Your task to perform on an android device: check out phone information Image 0: 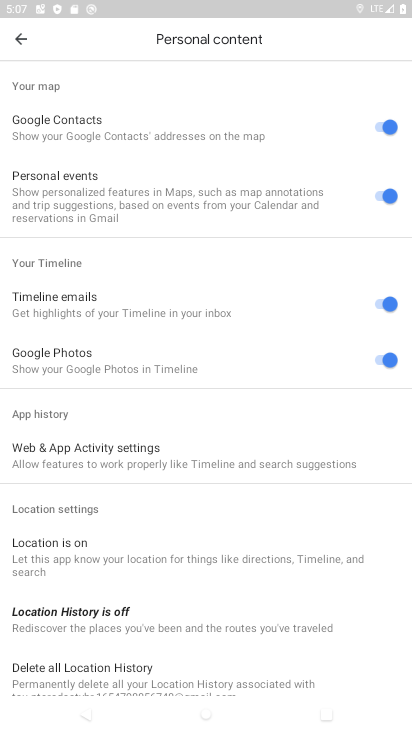
Step 0: drag from (293, 8) to (310, 671)
Your task to perform on an android device: check out phone information Image 1: 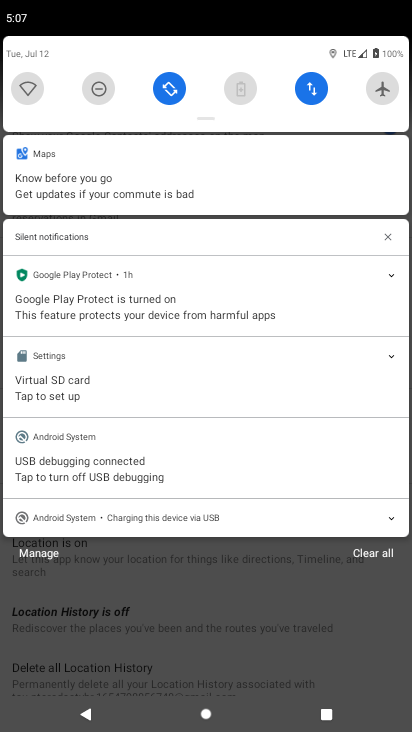
Step 1: drag from (222, 318) to (263, 690)
Your task to perform on an android device: check out phone information Image 2: 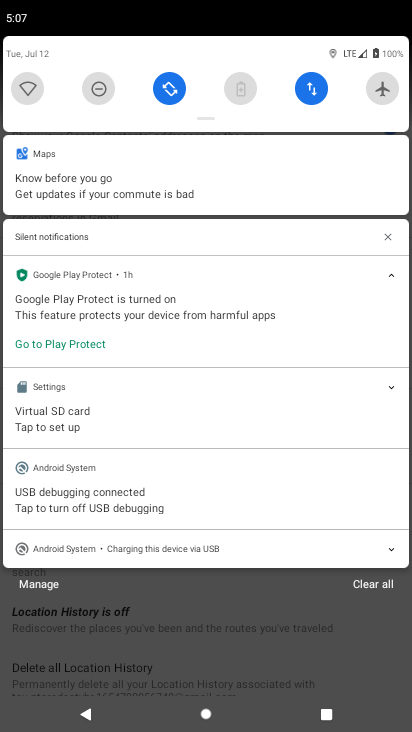
Step 2: drag from (223, 317) to (249, 585)
Your task to perform on an android device: check out phone information Image 3: 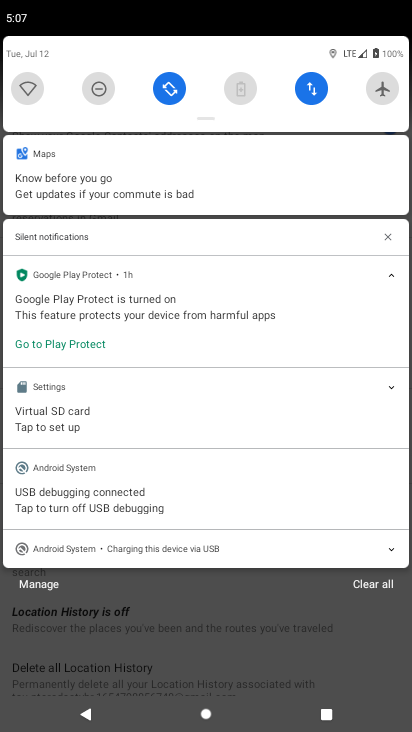
Step 3: drag from (197, 63) to (221, 697)
Your task to perform on an android device: check out phone information Image 4: 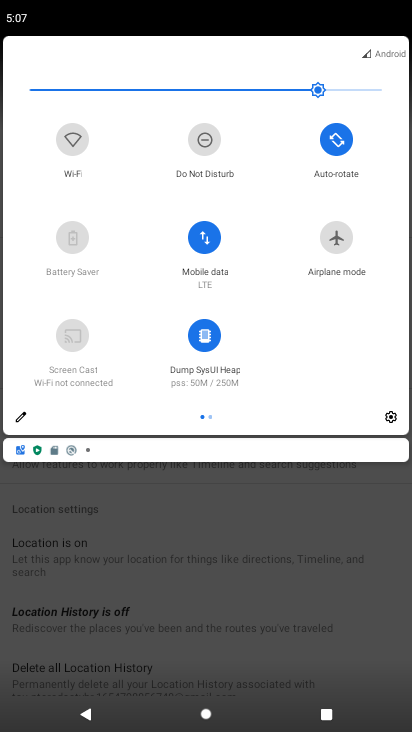
Step 4: click (396, 428)
Your task to perform on an android device: check out phone information Image 5: 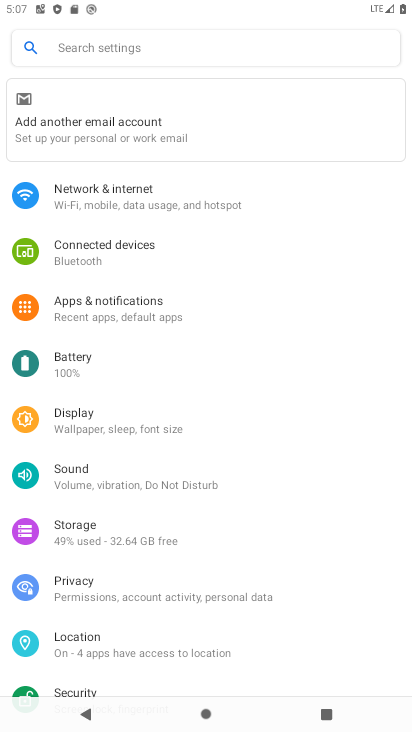
Step 5: drag from (185, 597) to (146, 124)
Your task to perform on an android device: check out phone information Image 6: 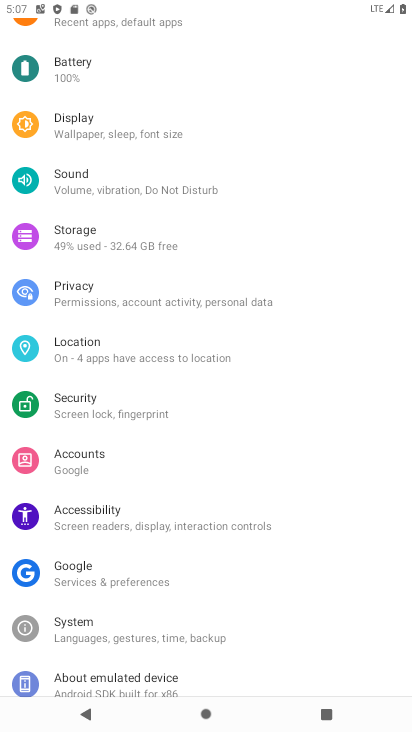
Step 6: drag from (129, 665) to (148, 219)
Your task to perform on an android device: check out phone information Image 7: 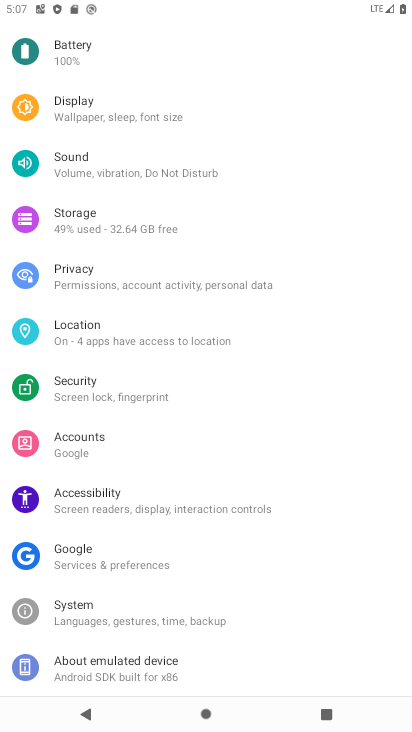
Step 7: click (129, 663)
Your task to perform on an android device: check out phone information Image 8: 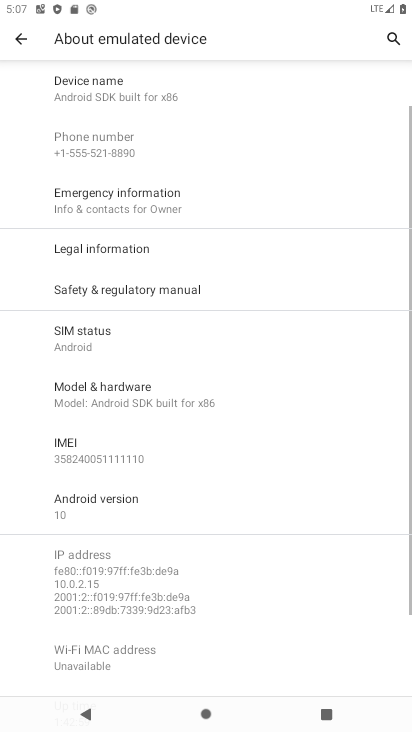
Step 8: task complete